Your task to perform on an android device: What's the weather? Image 0: 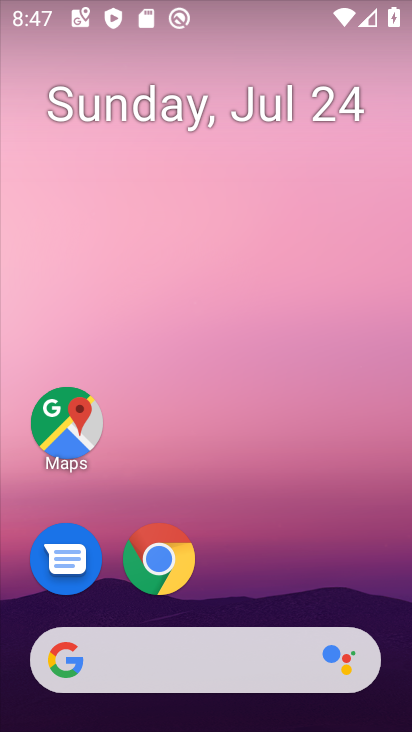
Step 0: click (181, 654)
Your task to perform on an android device: What's the weather? Image 1: 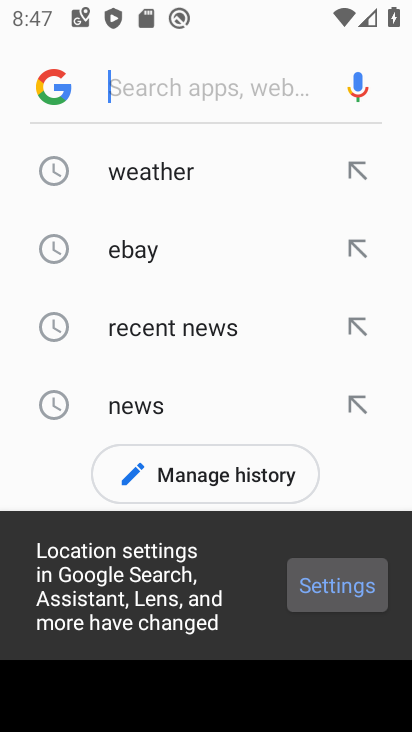
Step 1: click (163, 171)
Your task to perform on an android device: What's the weather? Image 2: 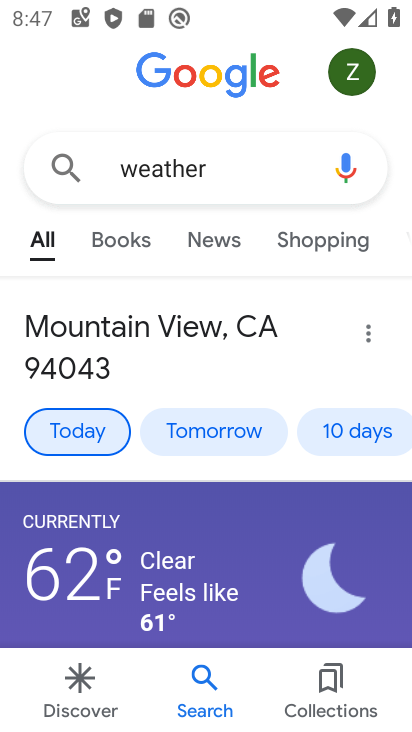
Step 2: task complete